Your task to perform on an android device: toggle wifi Image 0: 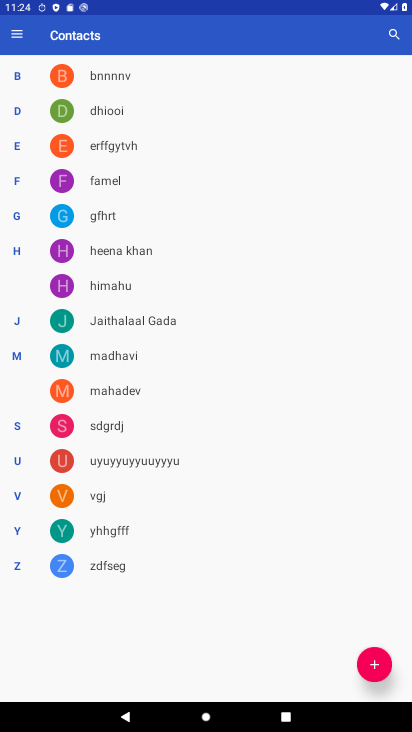
Step 0: press home button
Your task to perform on an android device: toggle wifi Image 1: 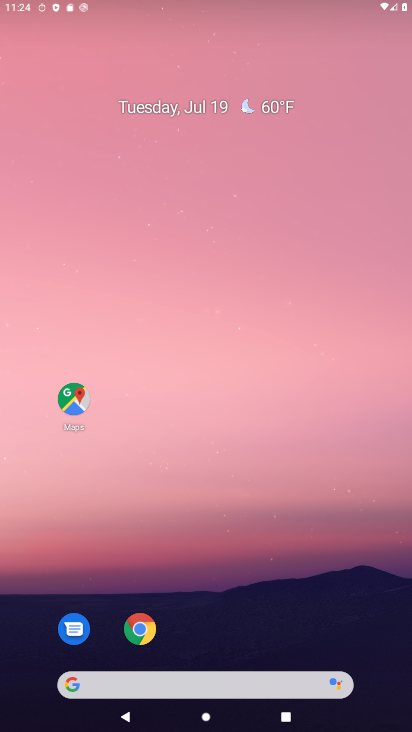
Step 1: drag from (312, 602) to (251, 117)
Your task to perform on an android device: toggle wifi Image 2: 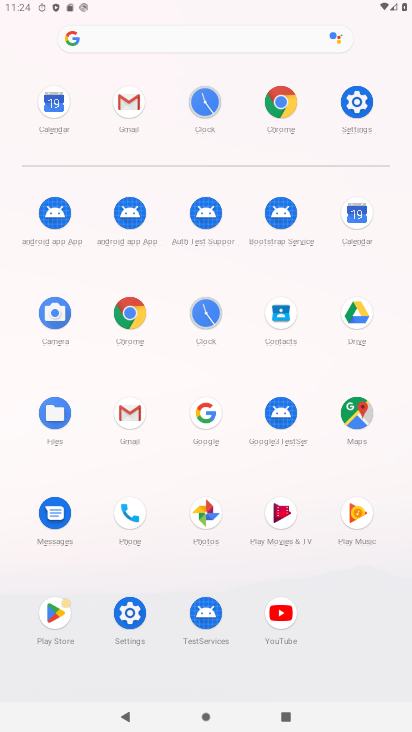
Step 2: click (361, 106)
Your task to perform on an android device: toggle wifi Image 3: 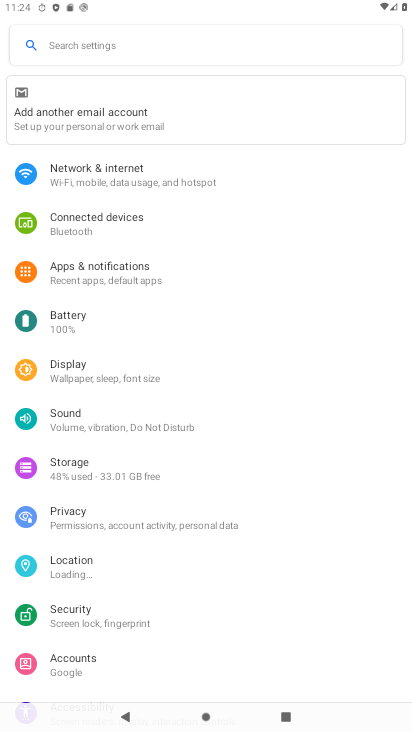
Step 3: click (129, 174)
Your task to perform on an android device: toggle wifi Image 4: 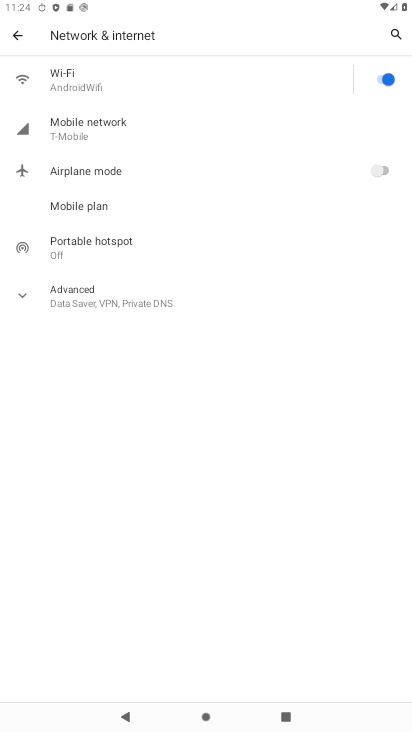
Step 4: click (388, 77)
Your task to perform on an android device: toggle wifi Image 5: 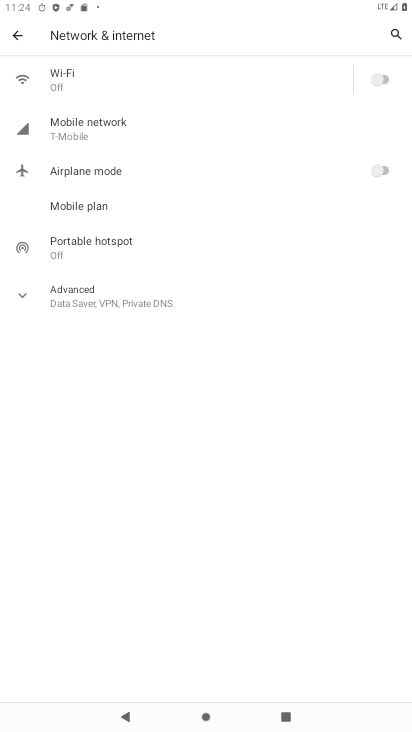
Step 5: task complete